Your task to perform on an android device: Go to Wikipedia Image 0: 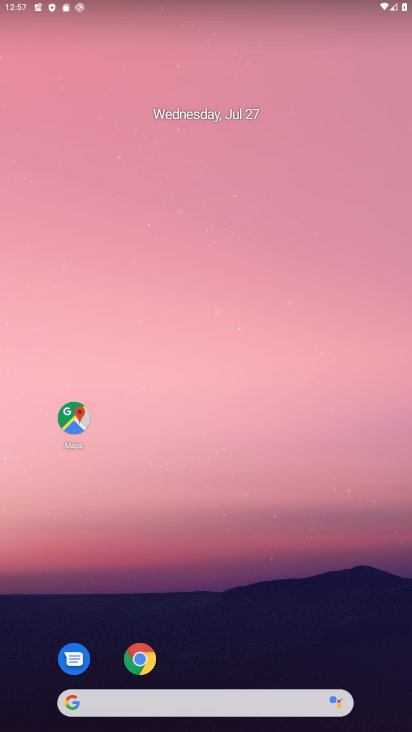
Step 0: press home button
Your task to perform on an android device: Go to Wikipedia Image 1: 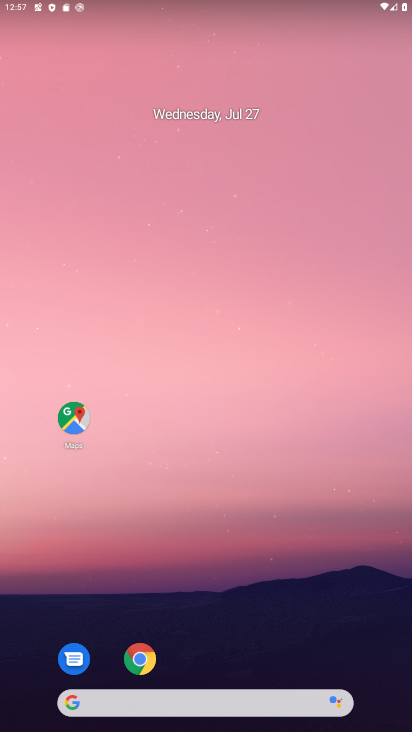
Step 1: drag from (196, 661) to (210, 52)
Your task to perform on an android device: Go to Wikipedia Image 2: 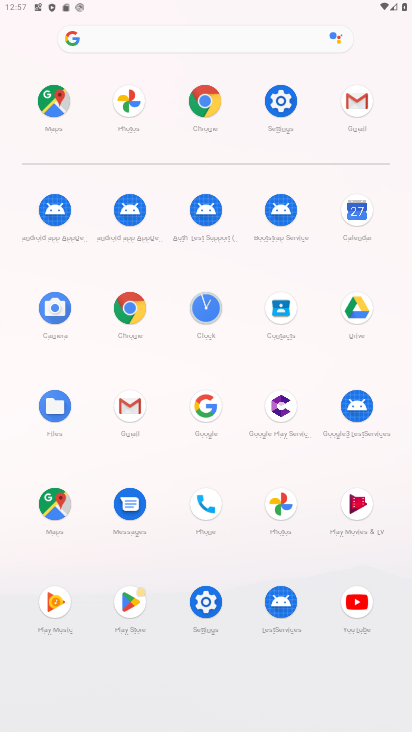
Step 2: click (200, 99)
Your task to perform on an android device: Go to Wikipedia Image 3: 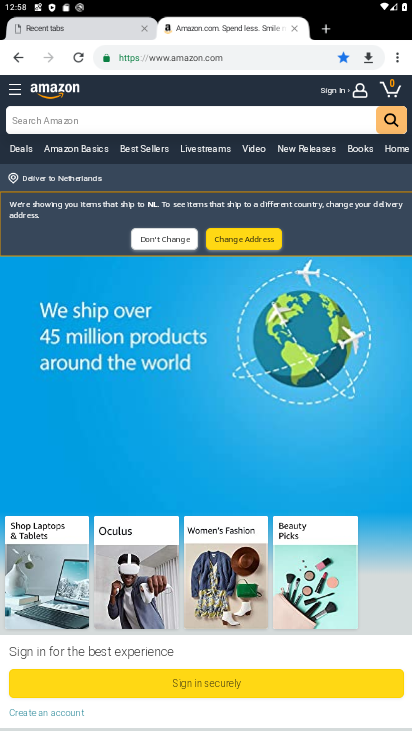
Step 3: click (324, 29)
Your task to perform on an android device: Go to Wikipedia Image 4: 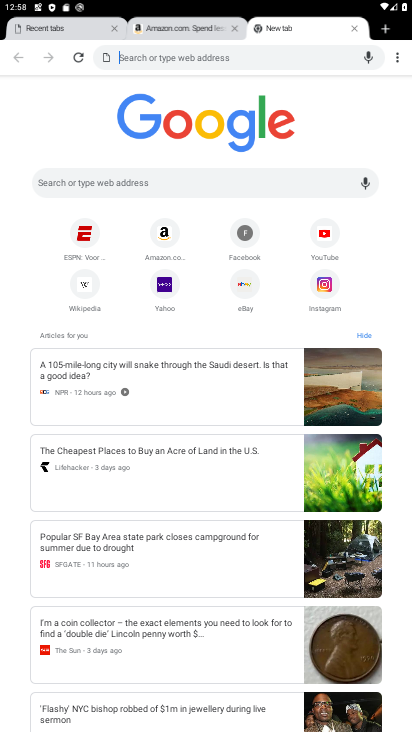
Step 4: click (81, 286)
Your task to perform on an android device: Go to Wikipedia Image 5: 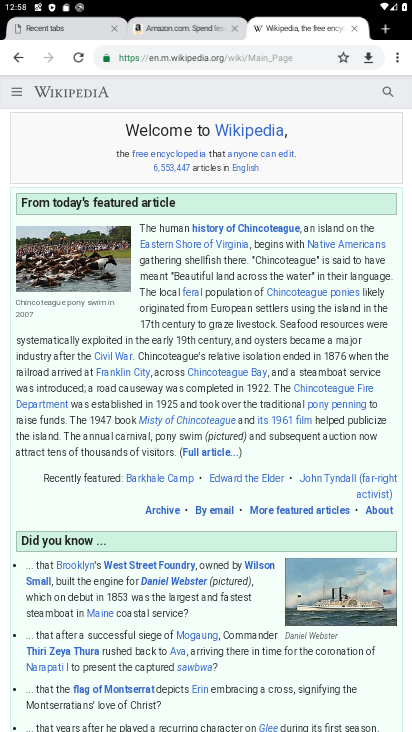
Step 5: task complete